Your task to perform on an android device: Go to Yahoo.com Image 0: 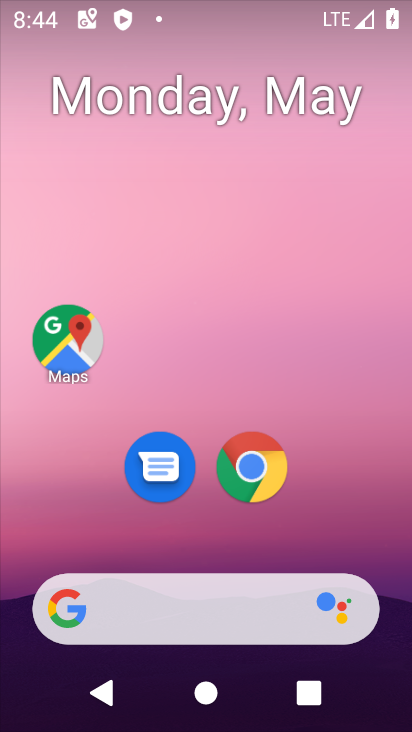
Step 0: click (261, 465)
Your task to perform on an android device: Go to Yahoo.com Image 1: 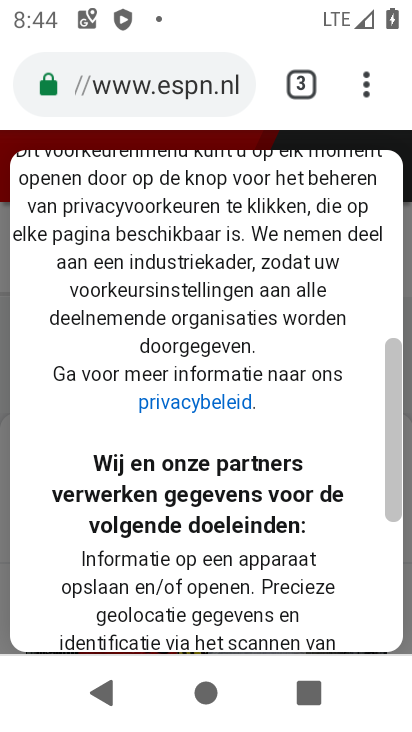
Step 1: click (312, 84)
Your task to perform on an android device: Go to Yahoo.com Image 2: 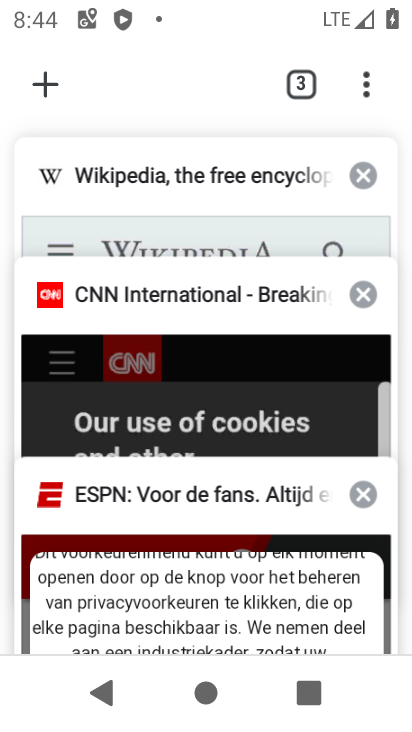
Step 2: click (43, 81)
Your task to perform on an android device: Go to Yahoo.com Image 3: 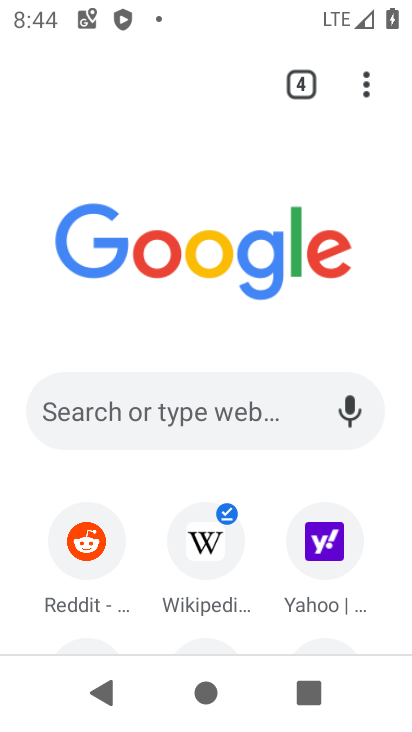
Step 3: click (327, 552)
Your task to perform on an android device: Go to Yahoo.com Image 4: 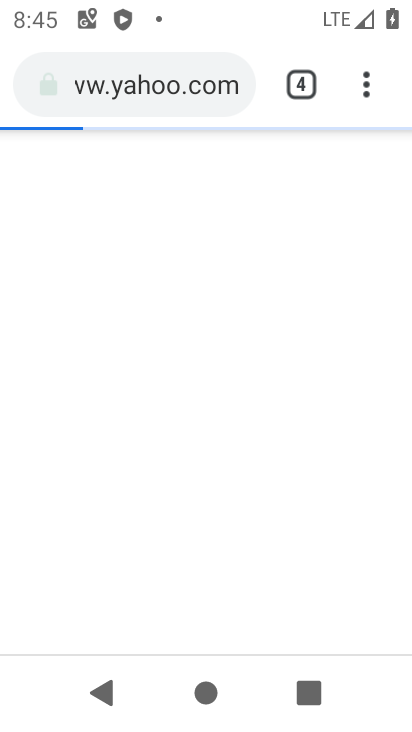
Step 4: task complete